Your task to perform on an android device: What's the weather? Image 0: 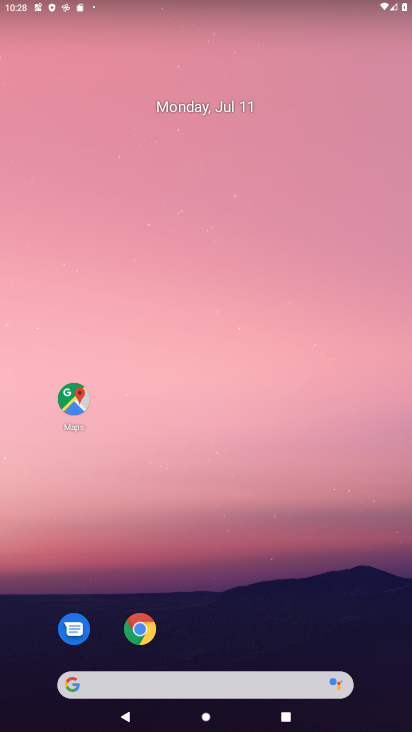
Step 0: click (248, 673)
Your task to perform on an android device: What's the weather? Image 1: 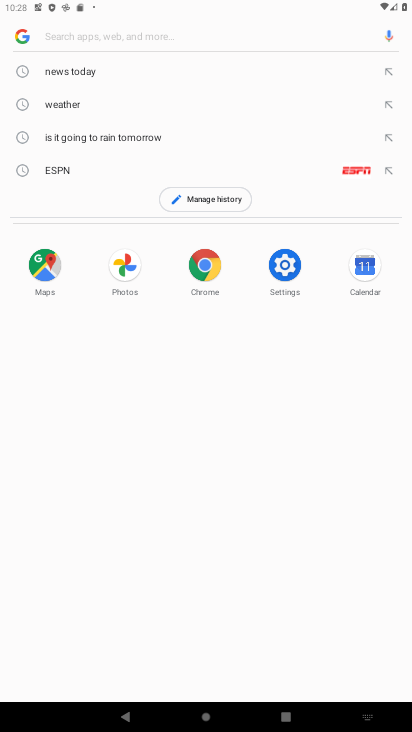
Step 1: click (130, 105)
Your task to perform on an android device: What's the weather? Image 2: 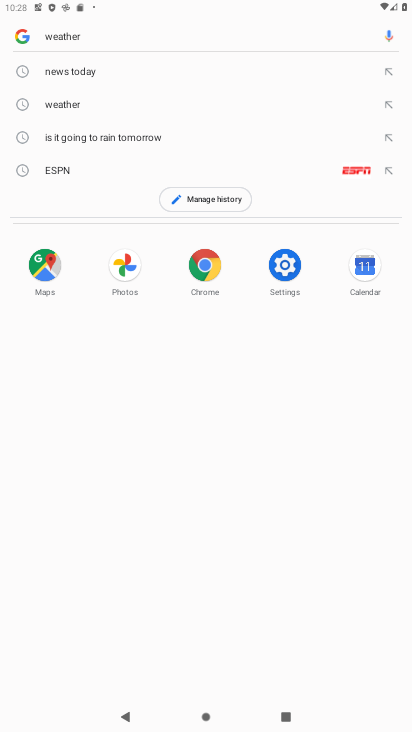
Step 2: task complete